Your task to perform on an android device: find which apps use the phone's location Image 0: 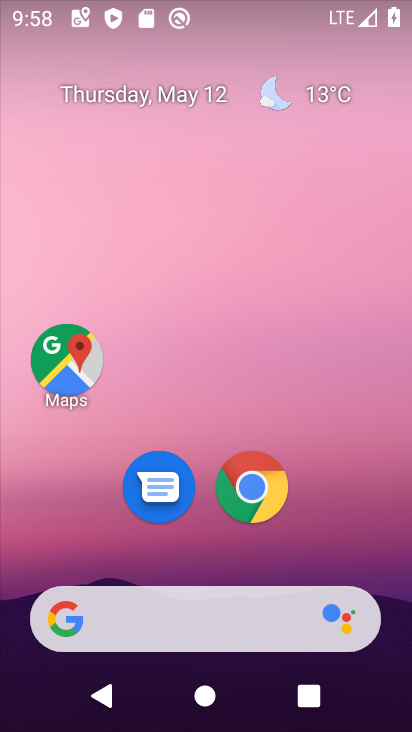
Step 0: drag from (359, 537) to (305, 0)
Your task to perform on an android device: find which apps use the phone's location Image 1: 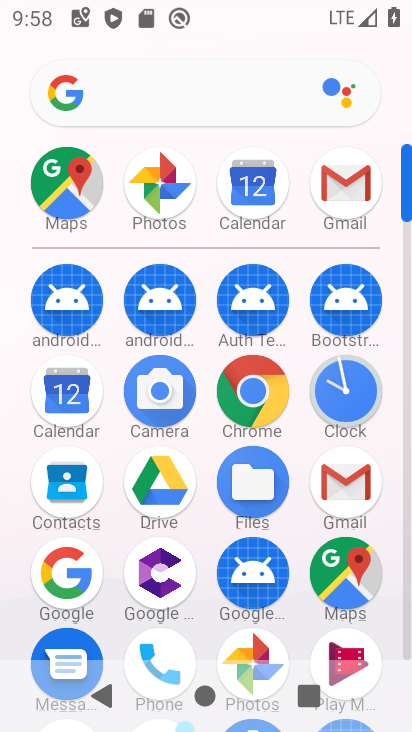
Step 1: drag from (407, 491) to (411, 448)
Your task to perform on an android device: find which apps use the phone's location Image 2: 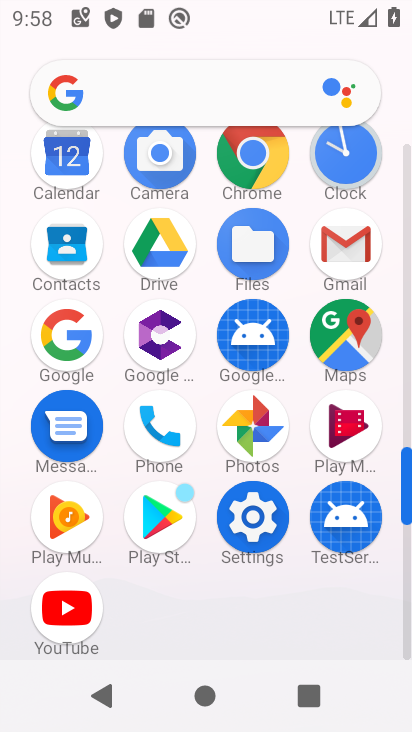
Step 2: click (255, 530)
Your task to perform on an android device: find which apps use the phone's location Image 3: 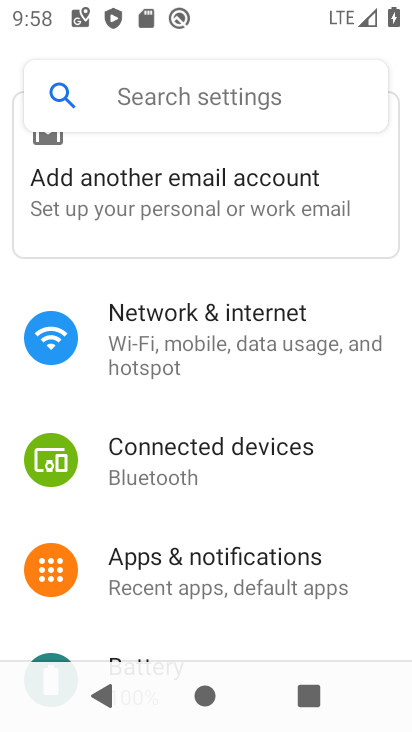
Step 3: drag from (324, 535) to (325, 83)
Your task to perform on an android device: find which apps use the phone's location Image 4: 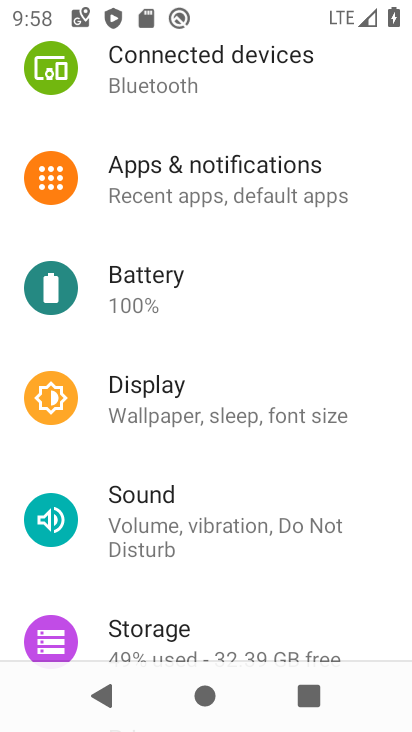
Step 4: drag from (278, 535) to (289, 202)
Your task to perform on an android device: find which apps use the phone's location Image 5: 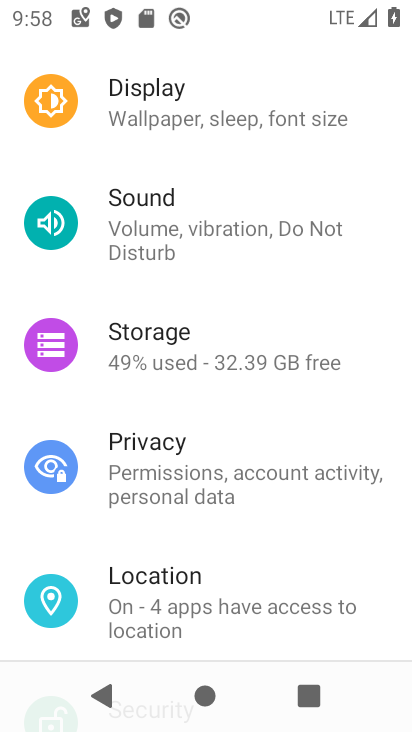
Step 5: click (151, 589)
Your task to perform on an android device: find which apps use the phone's location Image 6: 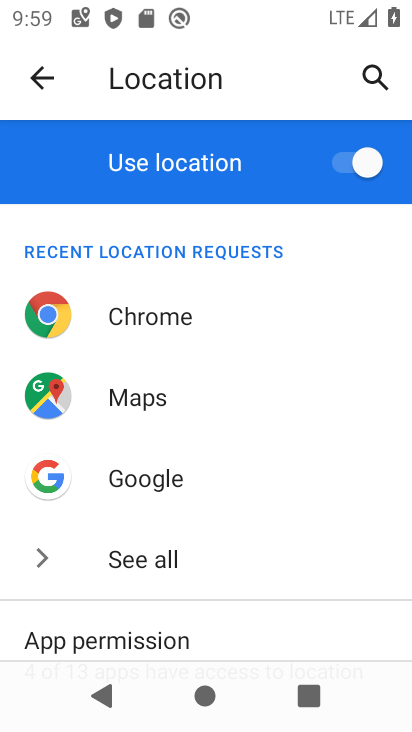
Step 6: drag from (224, 450) to (229, 127)
Your task to perform on an android device: find which apps use the phone's location Image 7: 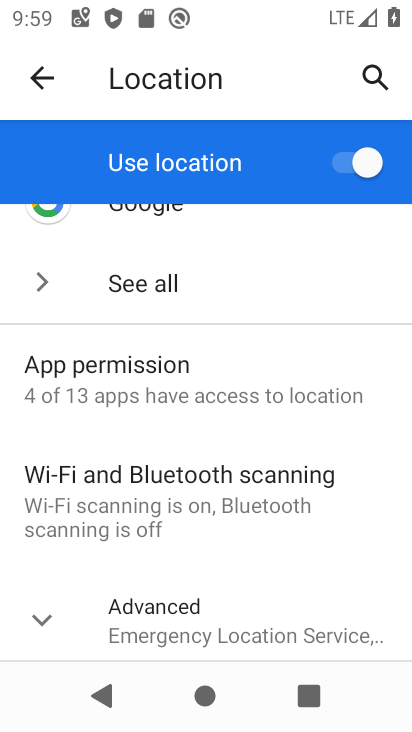
Step 7: click (146, 374)
Your task to perform on an android device: find which apps use the phone's location Image 8: 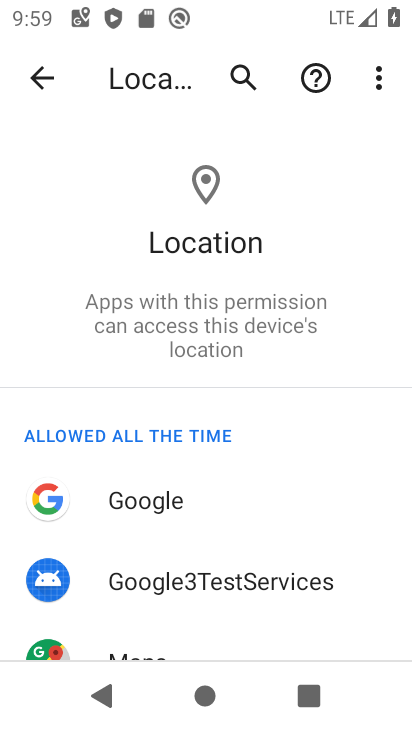
Step 8: task complete